Your task to perform on an android device: turn off javascript in the chrome app Image 0: 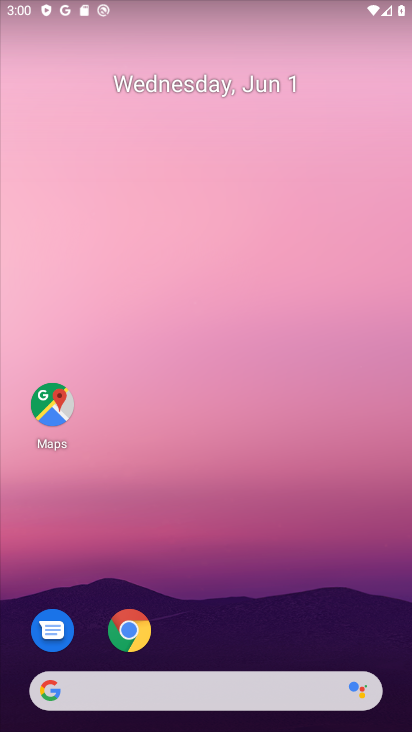
Step 0: click (121, 614)
Your task to perform on an android device: turn off javascript in the chrome app Image 1: 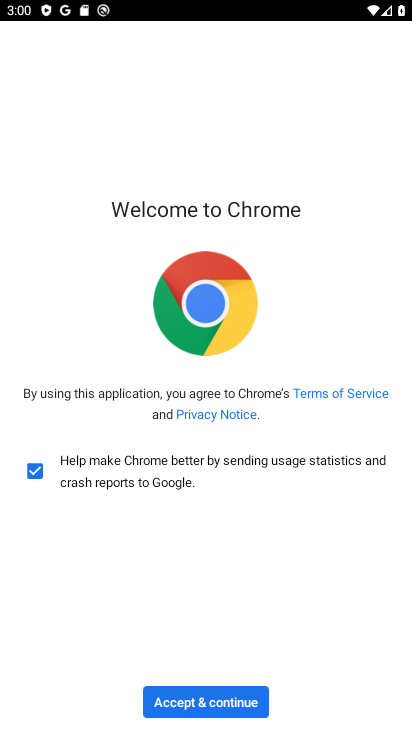
Step 1: click (225, 695)
Your task to perform on an android device: turn off javascript in the chrome app Image 2: 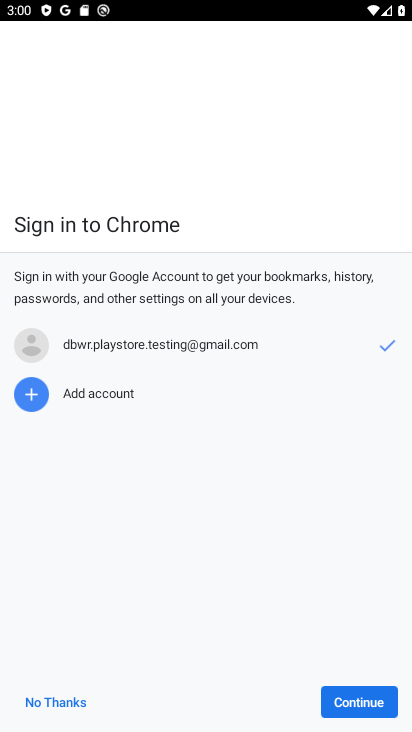
Step 2: click (361, 699)
Your task to perform on an android device: turn off javascript in the chrome app Image 3: 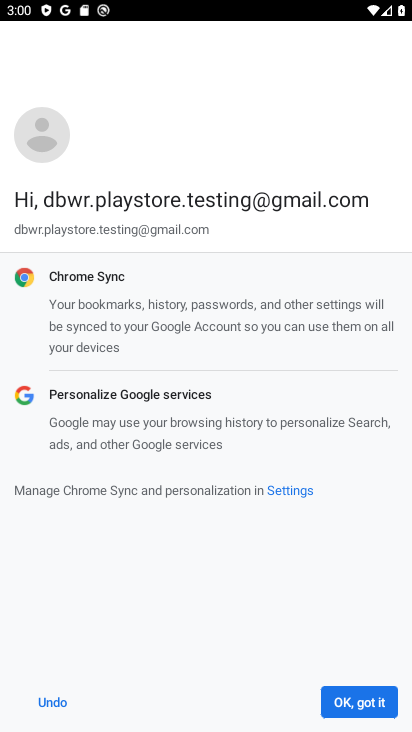
Step 3: click (358, 704)
Your task to perform on an android device: turn off javascript in the chrome app Image 4: 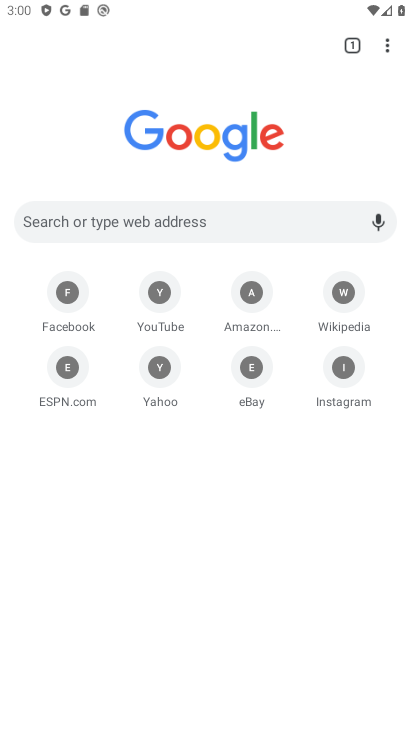
Step 4: click (385, 49)
Your task to perform on an android device: turn off javascript in the chrome app Image 5: 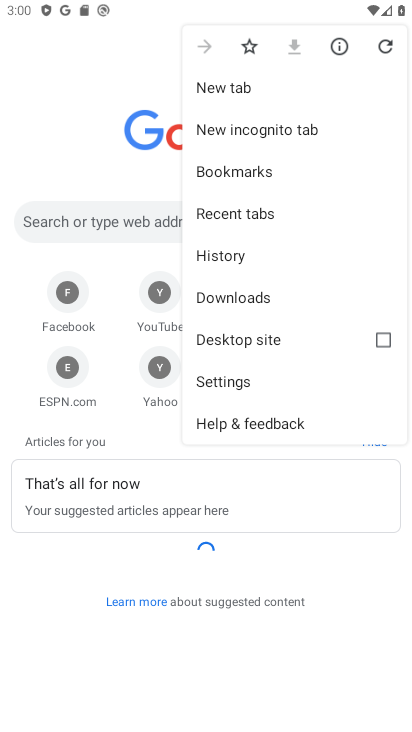
Step 5: click (214, 381)
Your task to perform on an android device: turn off javascript in the chrome app Image 6: 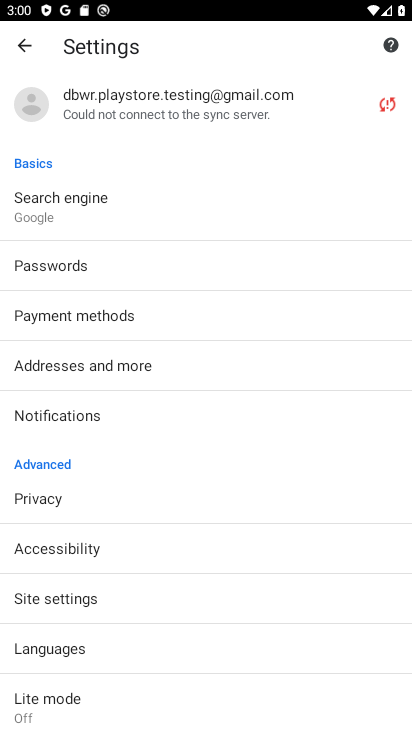
Step 6: click (97, 598)
Your task to perform on an android device: turn off javascript in the chrome app Image 7: 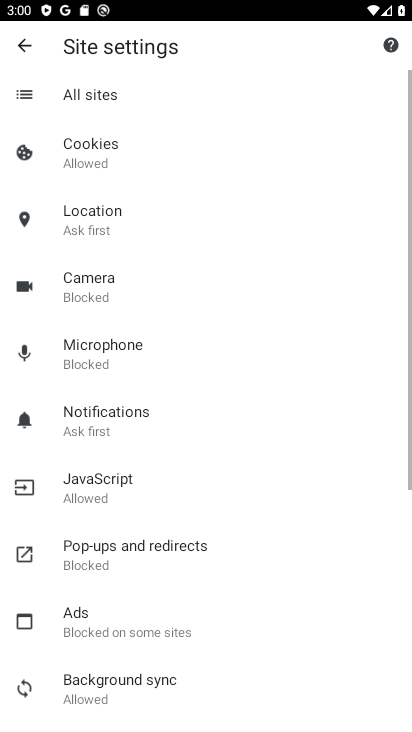
Step 7: click (99, 494)
Your task to perform on an android device: turn off javascript in the chrome app Image 8: 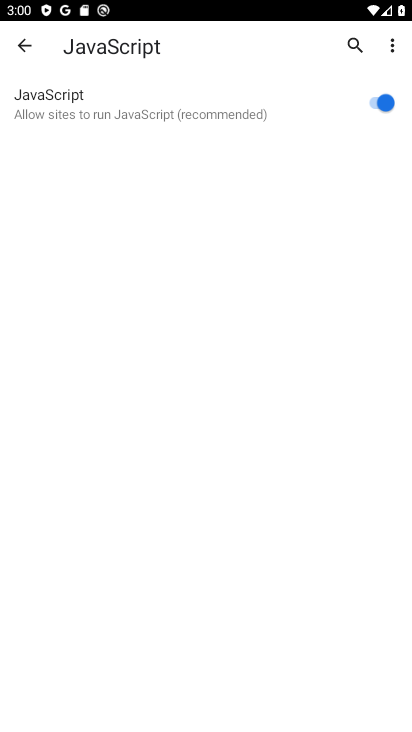
Step 8: click (381, 101)
Your task to perform on an android device: turn off javascript in the chrome app Image 9: 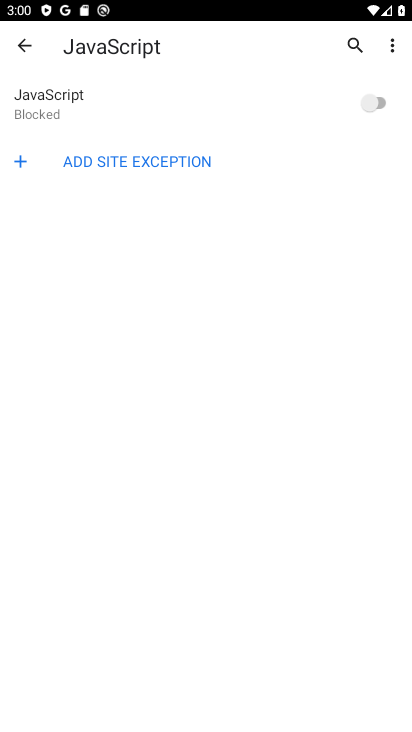
Step 9: task complete